Your task to perform on an android device: change notification settings in the gmail app Image 0: 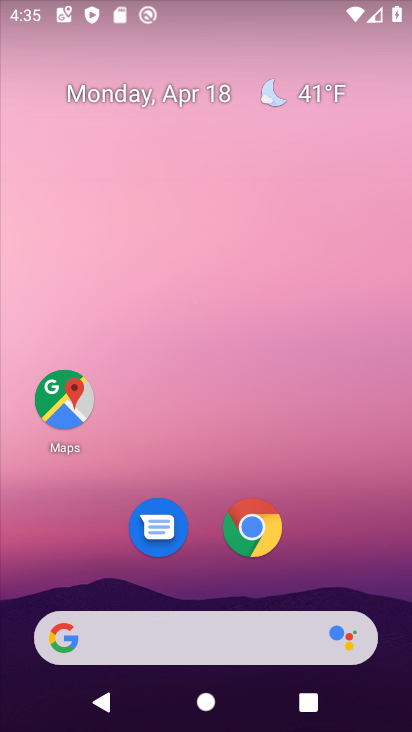
Step 0: drag from (321, 517) to (346, 127)
Your task to perform on an android device: change notification settings in the gmail app Image 1: 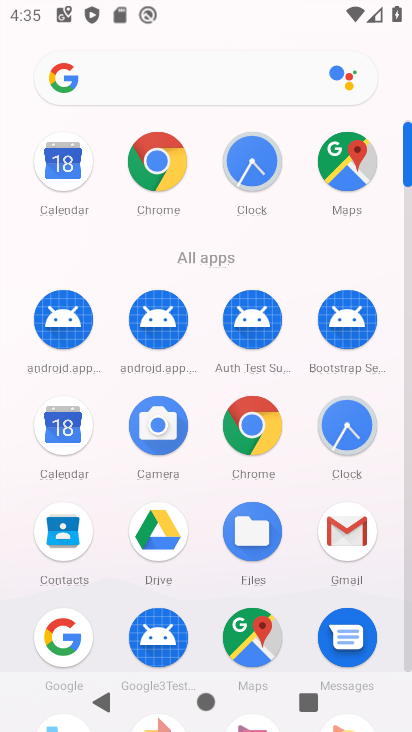
Step 1: click (352, 539)
Your task to perform on an android device: change notification settings in the gmail app Image 2: 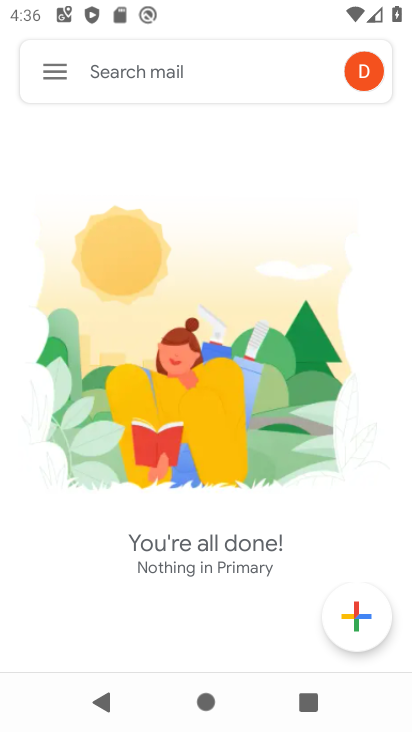
Step 2: click (58, 72)
Your task to perform on an android device: change notification settings in the gmail app Image 3: 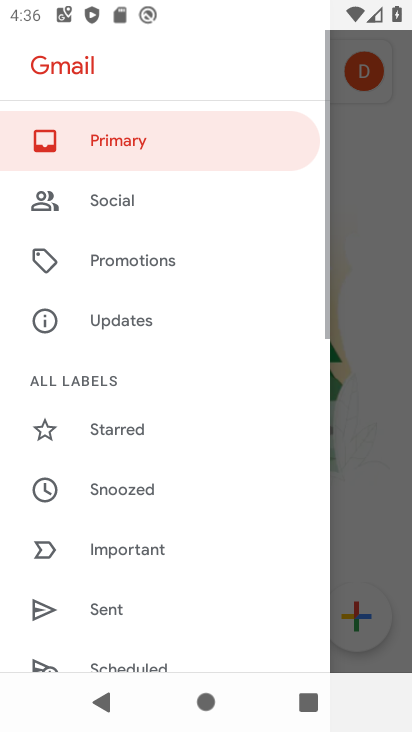
Step 3: drag from (190, 640) to (265, 225)
Your task to perform on an android device: change notification settings in the gmail app Image 4: 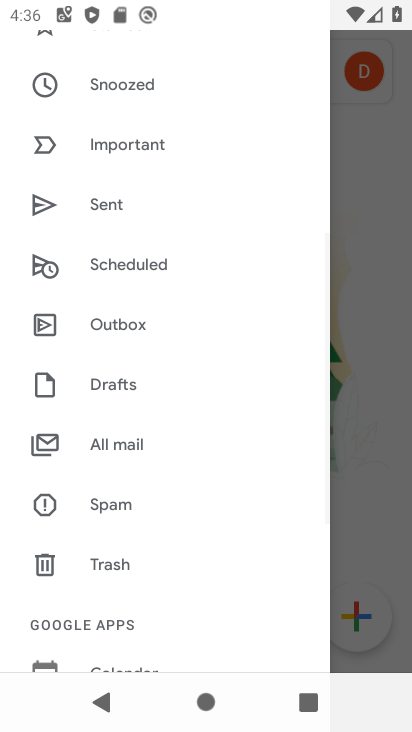
Step 4: drag from (207, 584) to (268, 242)
Your task to perform on an android device: change notification settings in the gmail app Image 5: 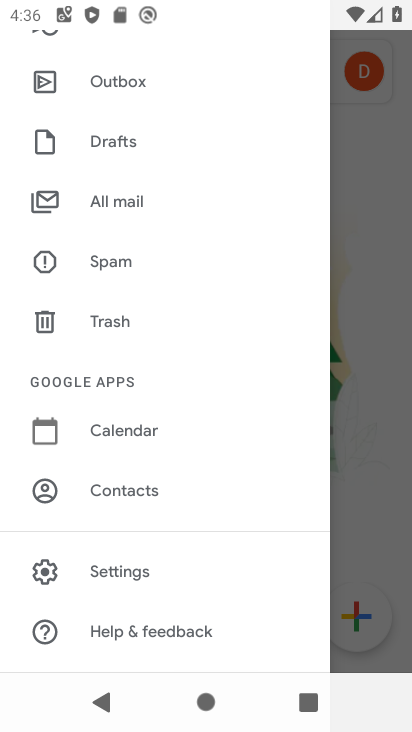
Step 5: click (104, 572)
Your task to perform on an android device: change notification settings in the gmail app Image 6: 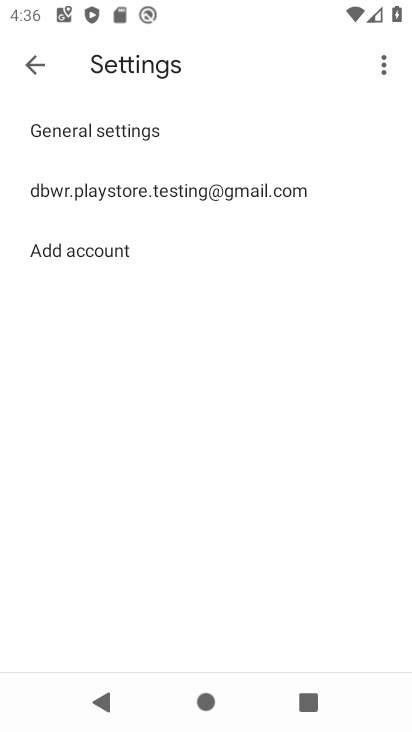
Step 6: click (280, 193)
Your task to perform on an android device: change notification settings in the gmail app Image 7: 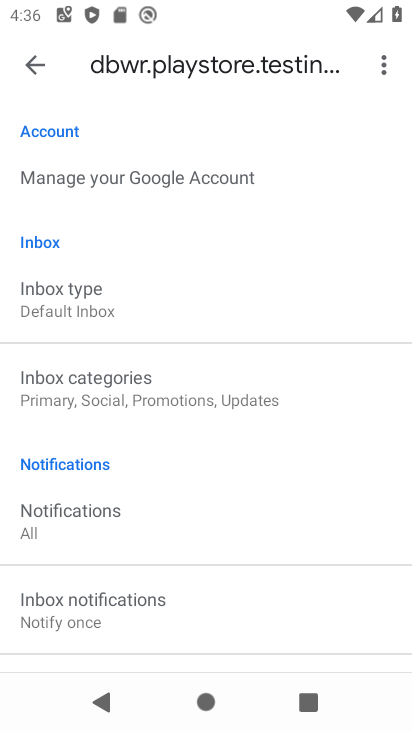
Step 7: drag from (234, 545) to (260, 225)
Your task to perform on an android device: change notification settings in the gmail app Image 8: 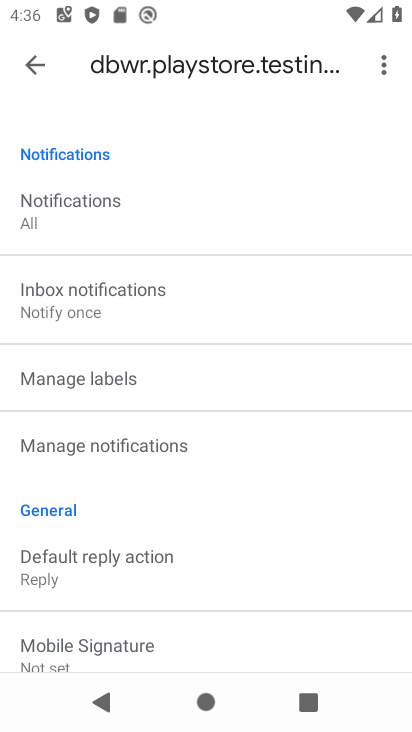
Step 8: click (153, 446)
Your task to perform on an android device: change notification settings in the gmail app Image 9: 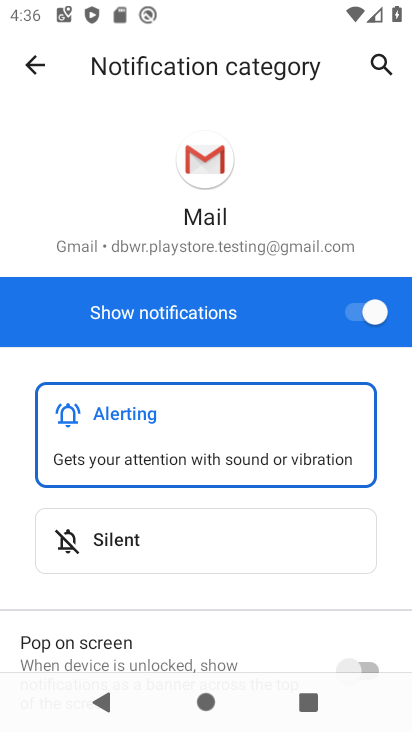
Step 9: click (338, 311)
Your task to perform on an android device: change notification settings in the gmail app Image 10: 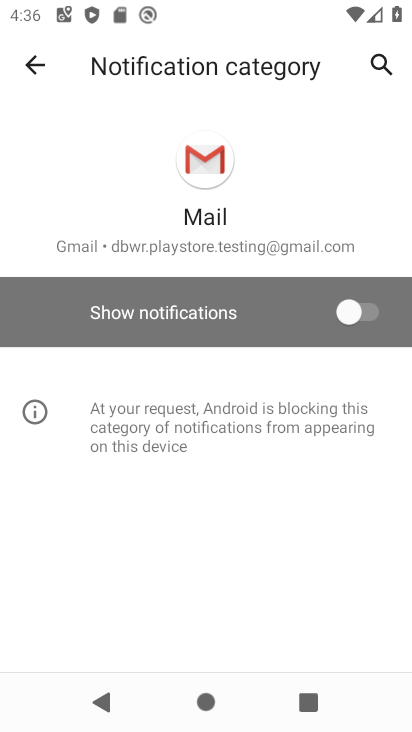
Step 10: task complete